Your task to perform on an android device: change the upload size in google photos Image 0: 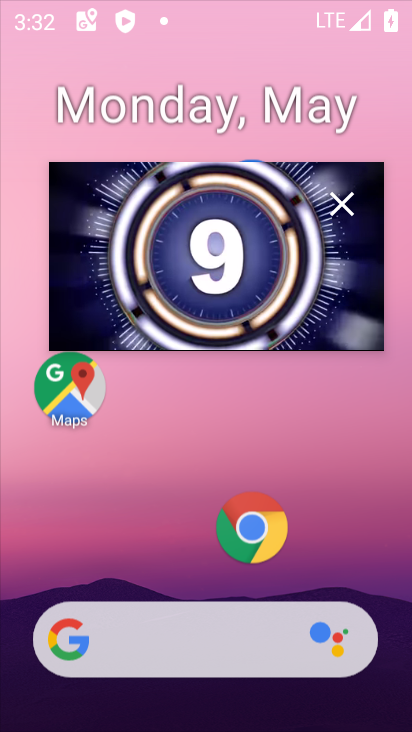
Step 0: click (226, 268)
Your task to perform on an android device: change the upload size in google photos Image 1: 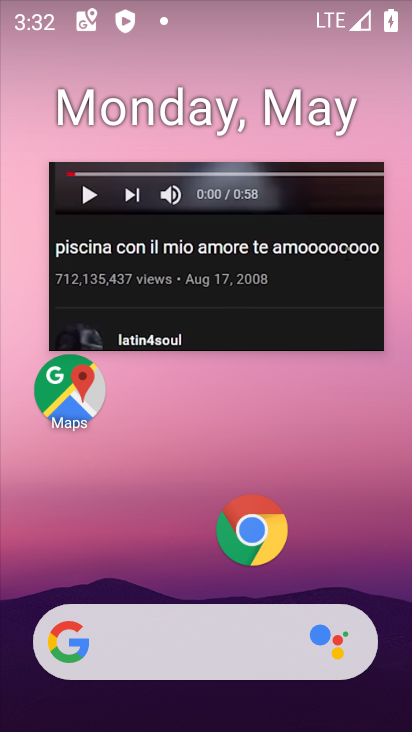
Step 1: click (198, 245)
Your task to perform on an android device: change the upload size in google photos Image 2: 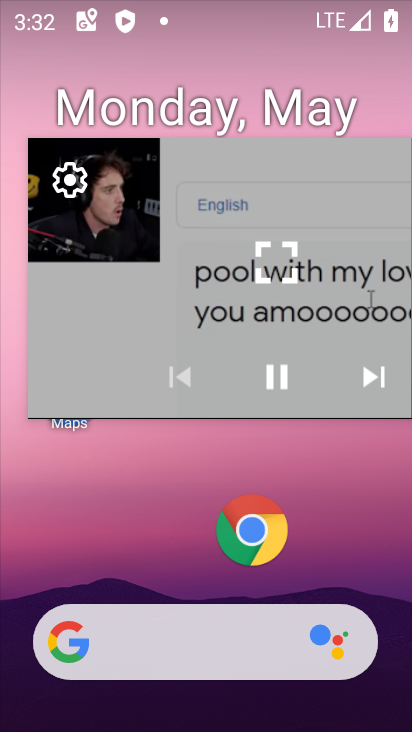
Step 2: click (258, 257)
Your task to perform on an android device: change the upload size in google photos Image 3: 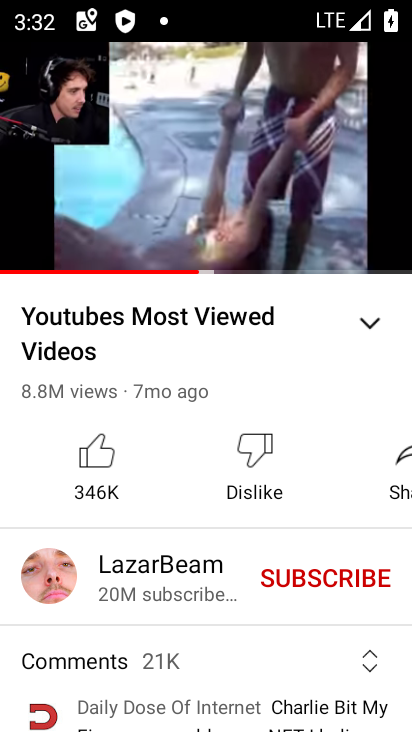
Step 3: click (177, 149)
Your task to perform on an android device: change the upload size in google photos Image 4: 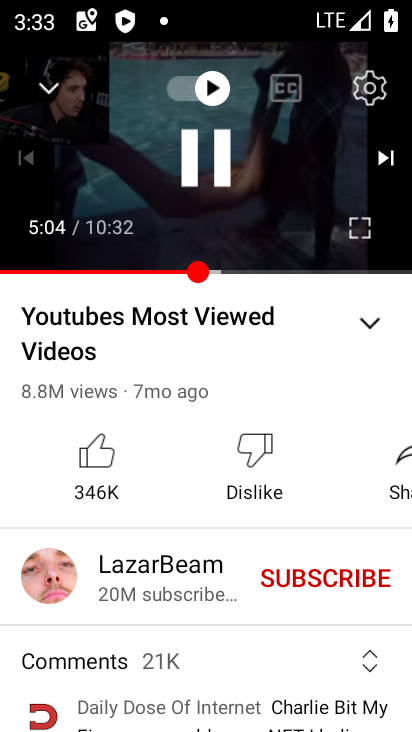
Step 4: click (195, 141)
Your task to perform on an android device: change the upload size in google photos Image 5: 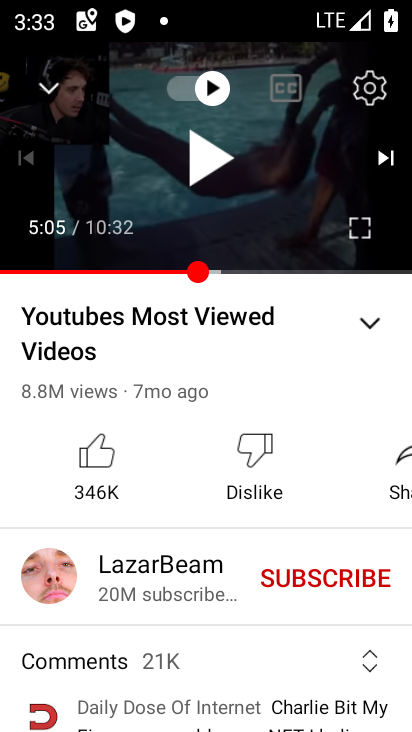
Step 5: press home button
Your task to perform on an android device: change the upload size in google photos Image 6: 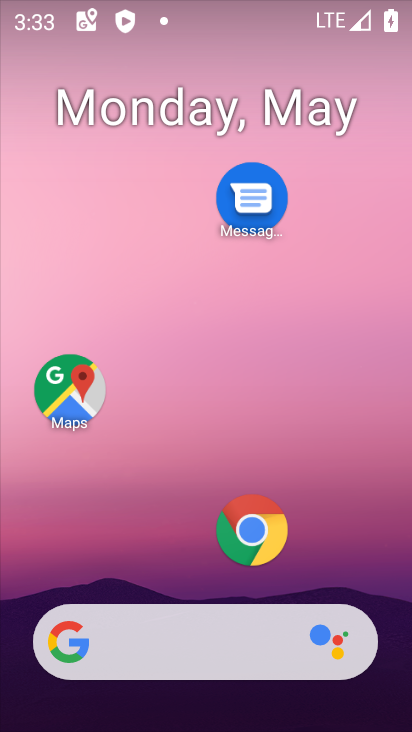
Step 6: drag from (212, 593) to (278, 70)
Your task to perform on an android device: change the upload size in google photos Image 7: 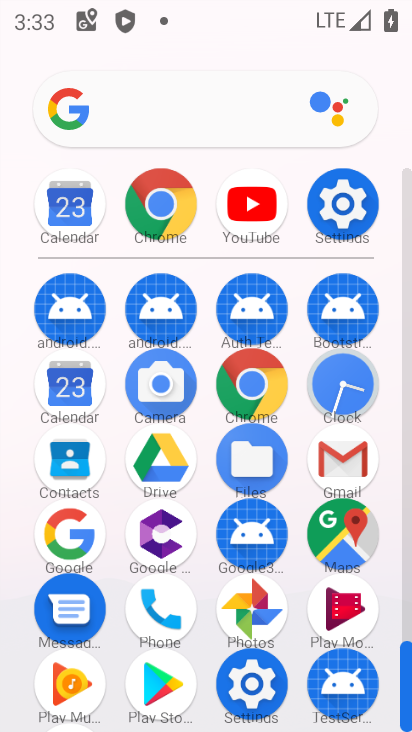
Step 7: click (249, 598)
Your task to perform on an android device: change the upload size in google photos Image 8: 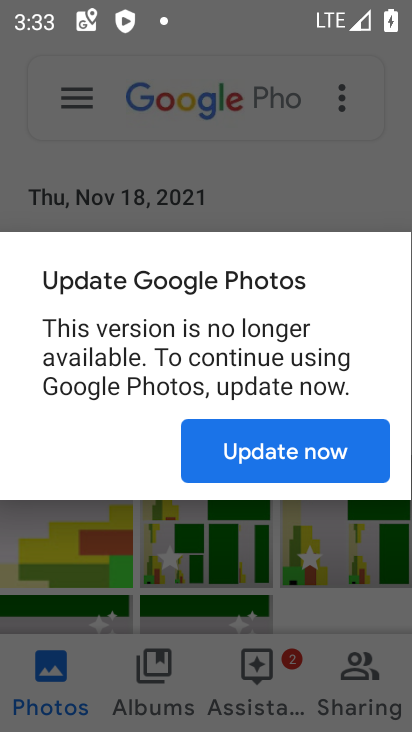
Step 8: click (291, 423)
Your task to perform on an android device: change the upload size in google photos Image 9: 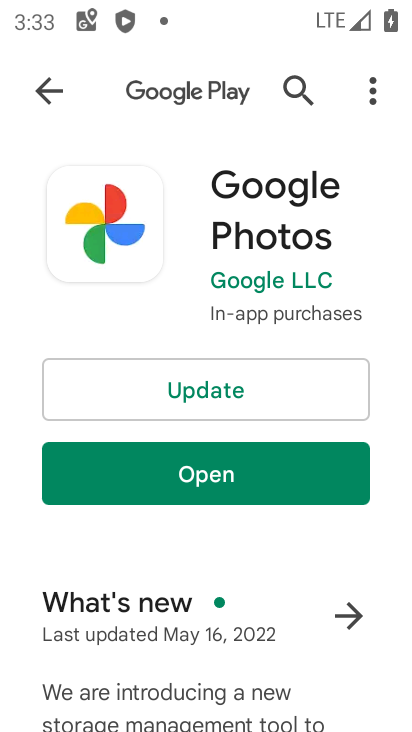
Step 9: click (243, 467)
Your task to perform on an android device: change the upload size in google photos Image 10: 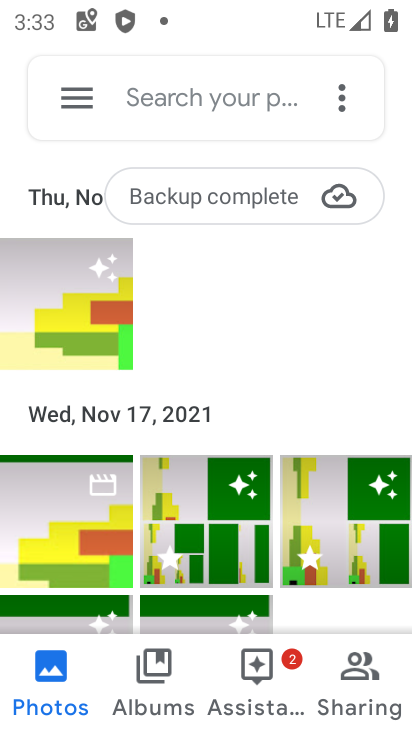
Step 10: click (66, 95)
Your task to perform on an android device: change the upload size in google photos Image 11: 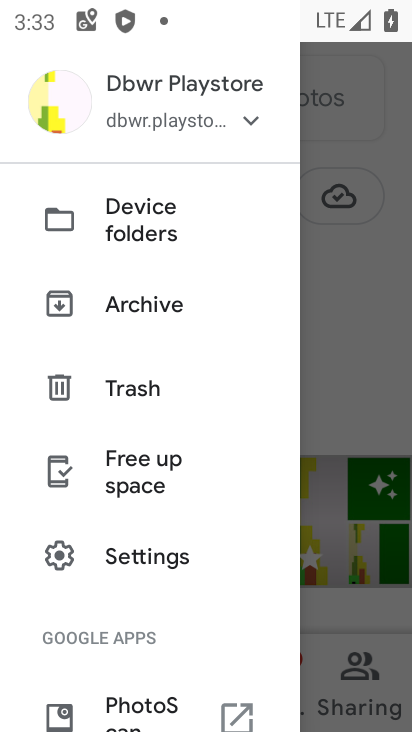
Step 11: click (148, 562)
Your task to perform on an android device: change the upload size in google photos Image 12: 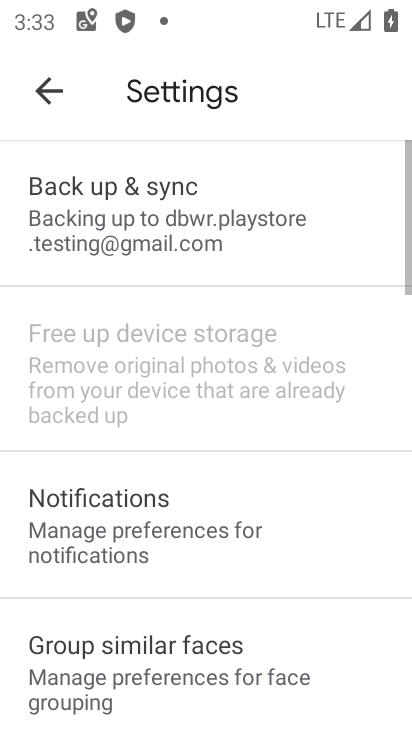
Step 12: click (151, 177)
Your task to perform on an android device: change the upload size in google photos Image 13: 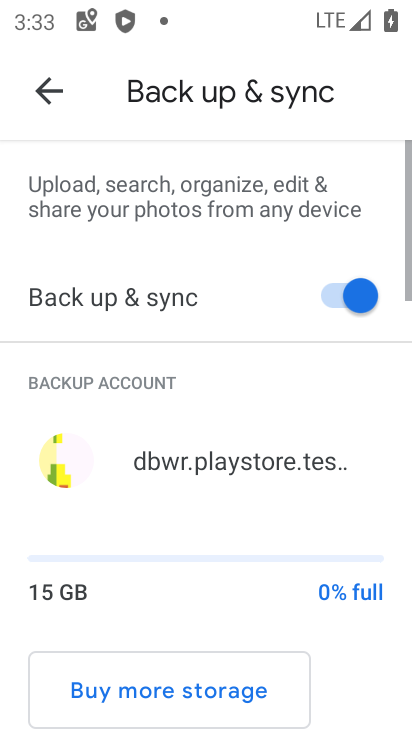
Step 13: drag from (244, 573) to (261, 71)
Your task to perform on an android device: change the upload size in google photos Image 14: 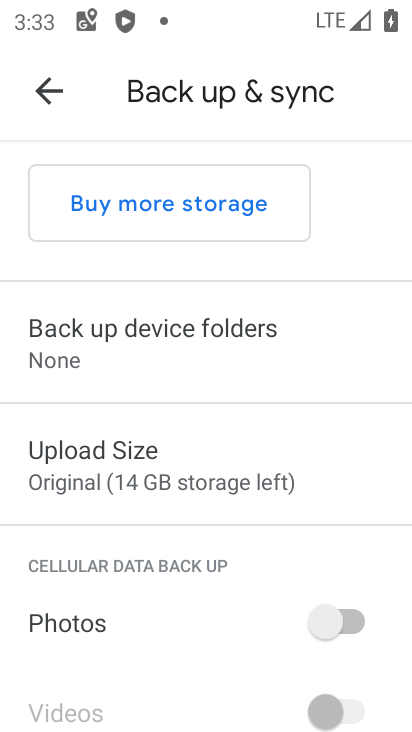
Step 14: click (103, 496)
Your task to perform on an android device: change the upload size in google photos Image 15: 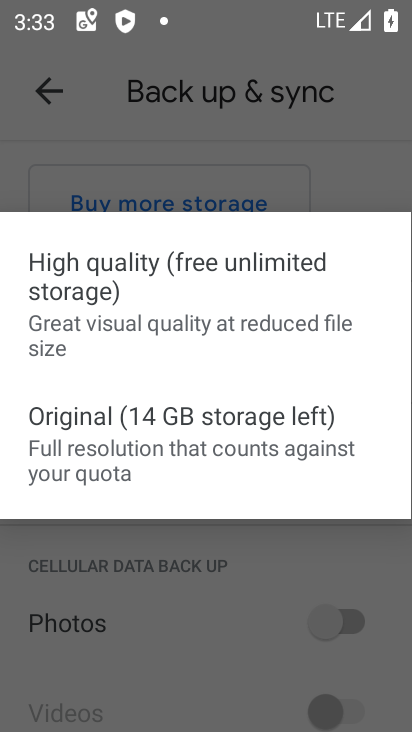
Step 15: click (104, 335)
Your task to perform on an android device: change the upload size in google photos Image 16: 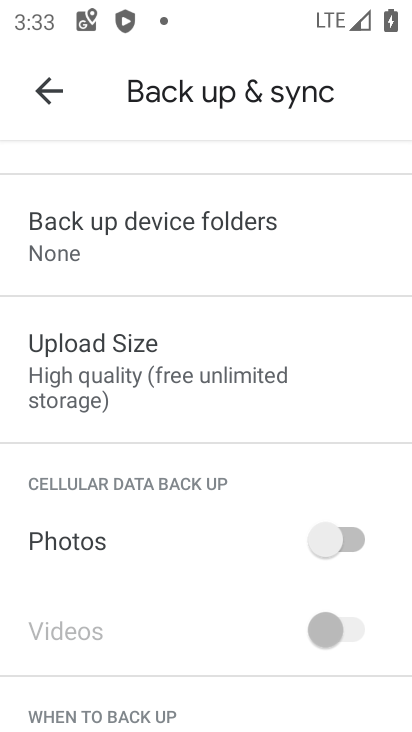
Step 16: task complete